Your task to perform on an android device: Open privacy settings Image 0: 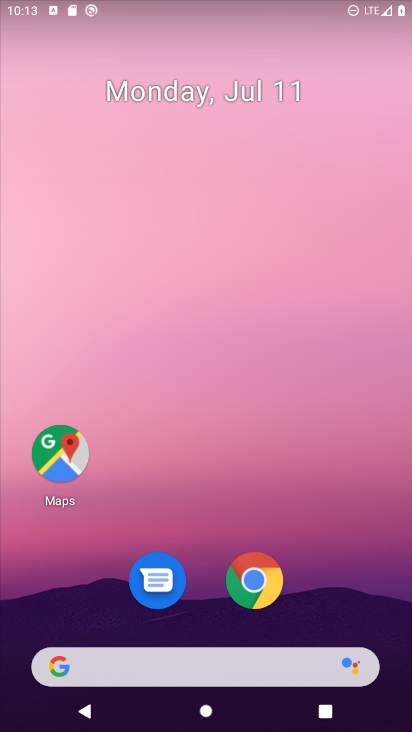
Step 0: drag from (343, 559) to (322, 43)
Your task to perform on an android device: Open privacy settings Image 1: 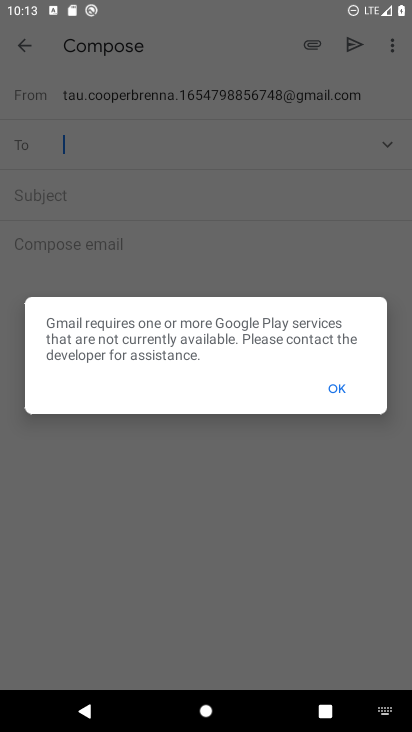
Step 1: press home button
Your task to perform on an android device: Open privacy settings Image 2: 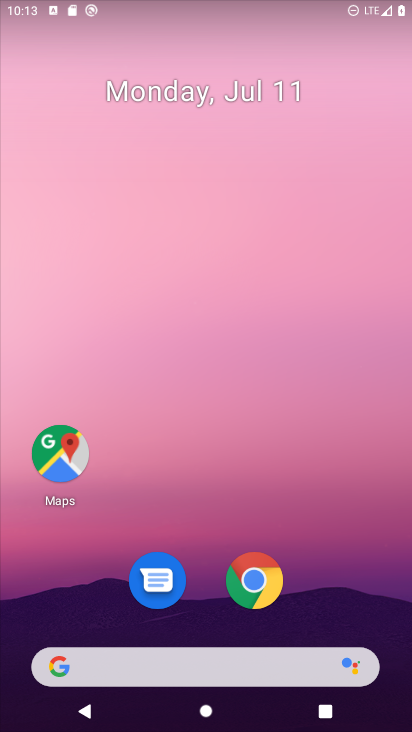
Step 2: drag from (329, 536) to (340, 62)
Your task to perform on an android device: Open privacy settings Image 3: 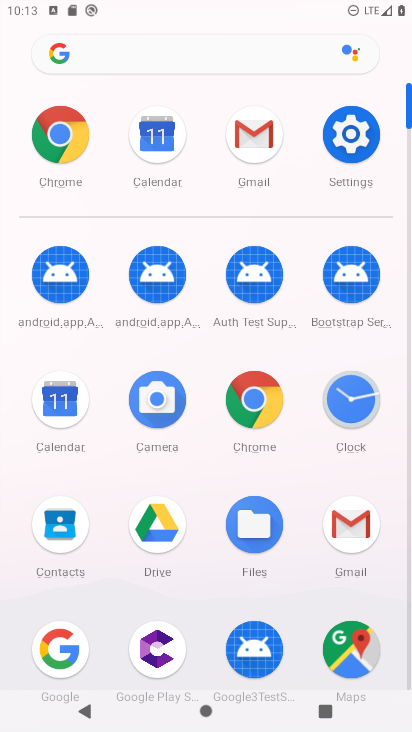
Step 3: click (347, 135)
Your task to perform on an android device: Open privacy settings Image 4: 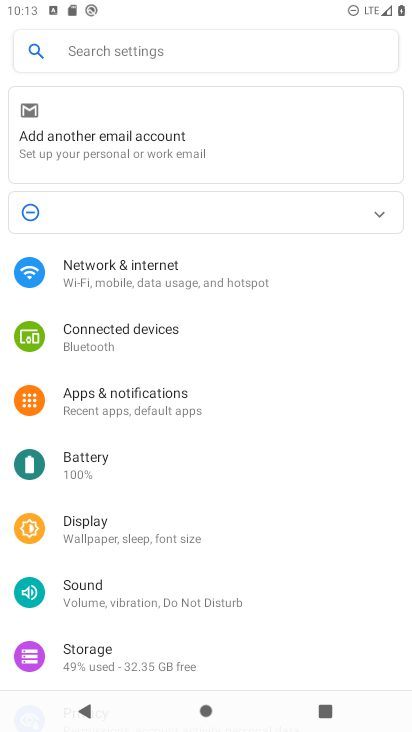
Step 4: drag from (292, 503) to (220, 85)
Your task to perform on an android device: Open privacy settings Image 5: 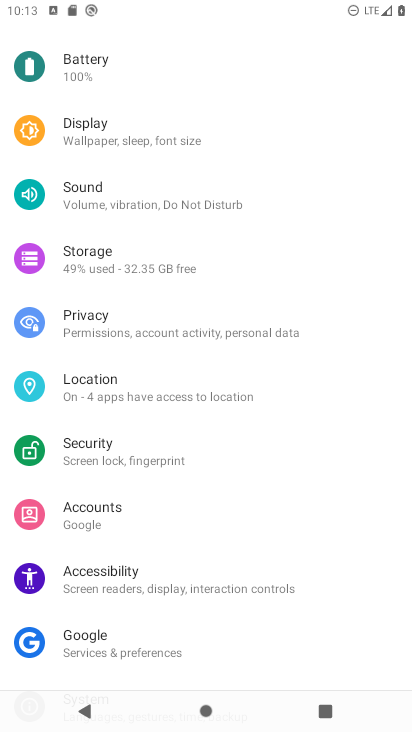
Step 5: click (176, 316)
Your task to perform on an android device: Open privacy settings Image 6: 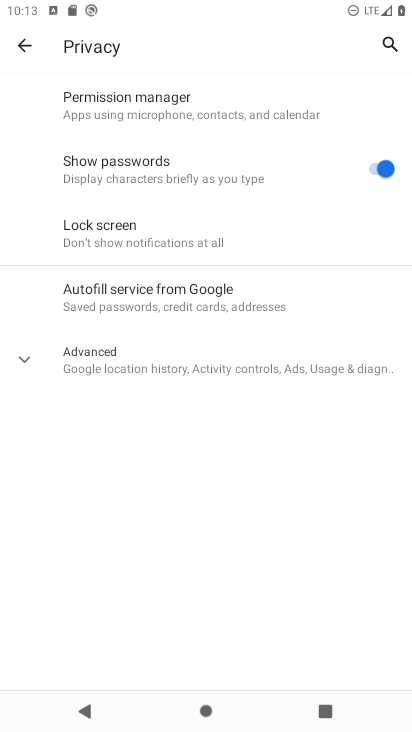
Step 6: click (25, 356)
Your task to perform on an android device: Open privacy settings Image 7: 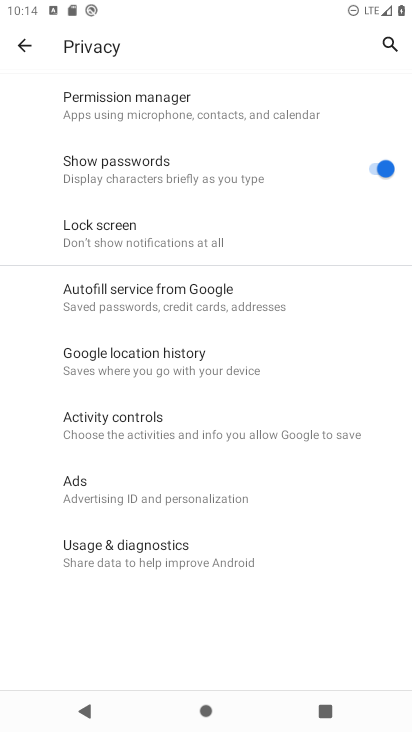
Step 7: task complete